Your task to perform on an android device: change the clock display to digital Image 0: 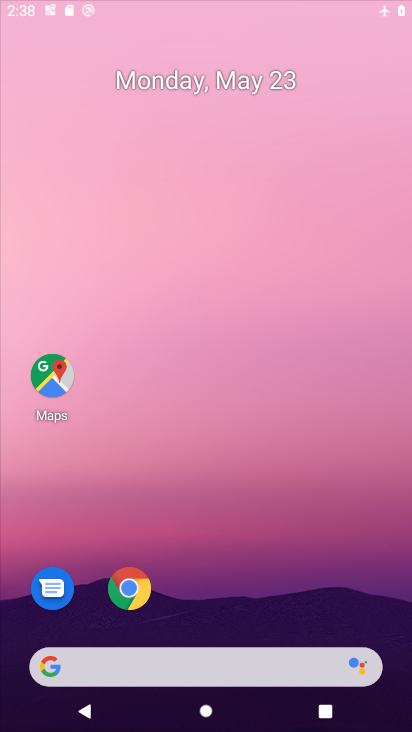
Step 0: click (161, 171)
Your task to perform on an android device: change the clock display to digital Image 1: 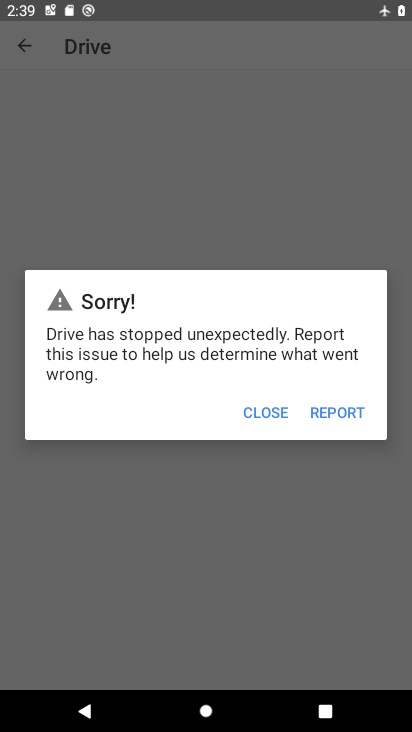
Step 1: press home button
Your task to perform on an android device: change the clock display to digital Image 2: 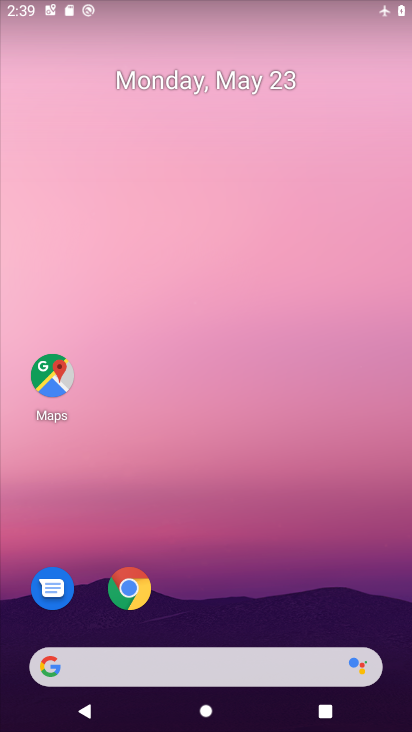
Step 2: drag from (231, 614) to (238, 127)
Your task to perform on an android device: change the clock display to digital Image 3: 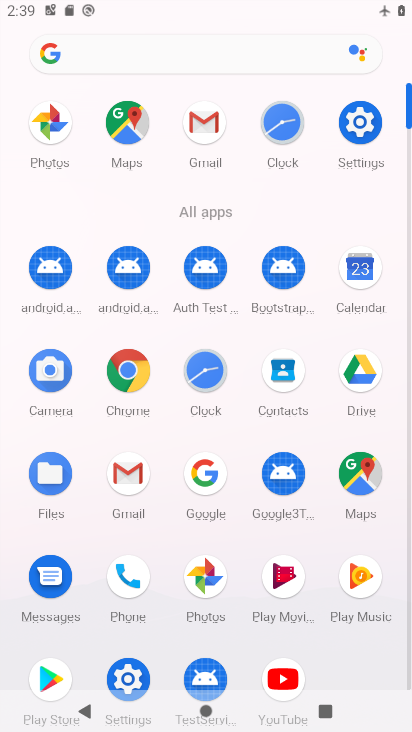
Step 3: click (217, 367)
Your task to perform on an android device: change the clock display to digital Image 4: 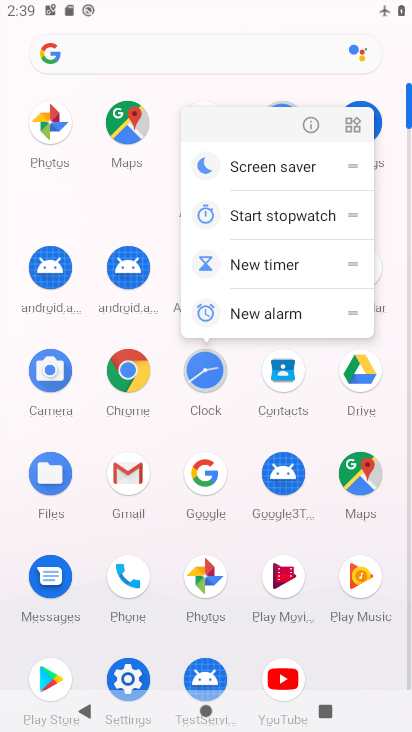
Step 4: click (304, 124)
Your task to perform on an android device: change the clock display to digital Image 5: 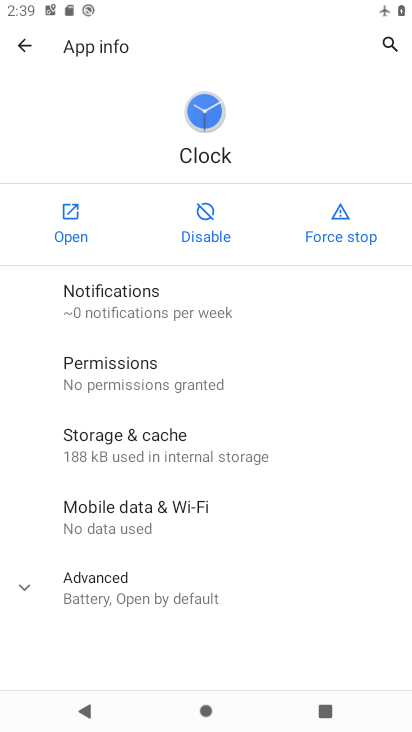
Step 5: click (69, 227)
Your task to perform on an android device: change the clock display to digital Image 6: 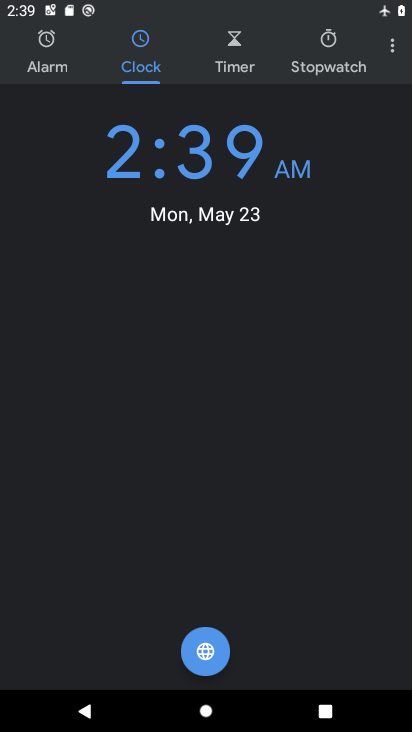
Step 6: click (388, 49)
Your task to perform on an android device: change the clock display to digital Image 7: 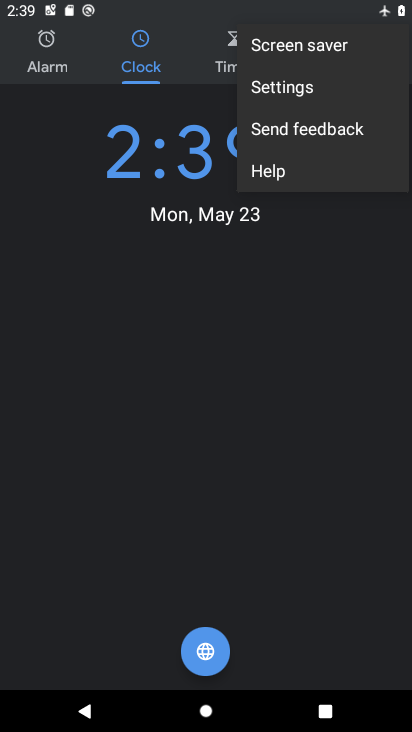
Step 7: click (294, 94)
Your task to perform on an android device: change the clock display to digital Image 8: 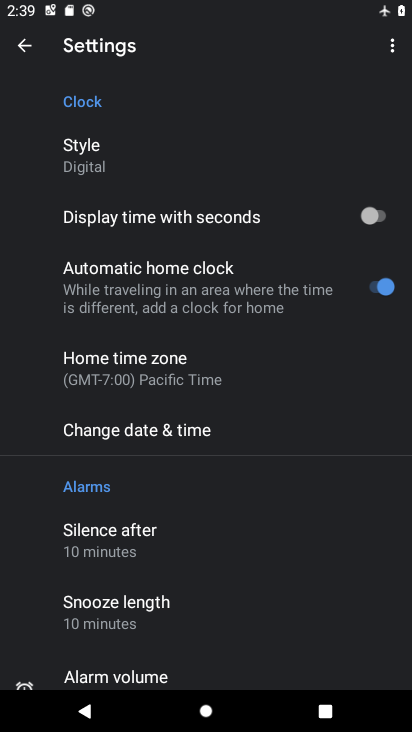
Step 8: click (78, 175)
Your task to perform on an android device: change the clock display to digital Image 9: 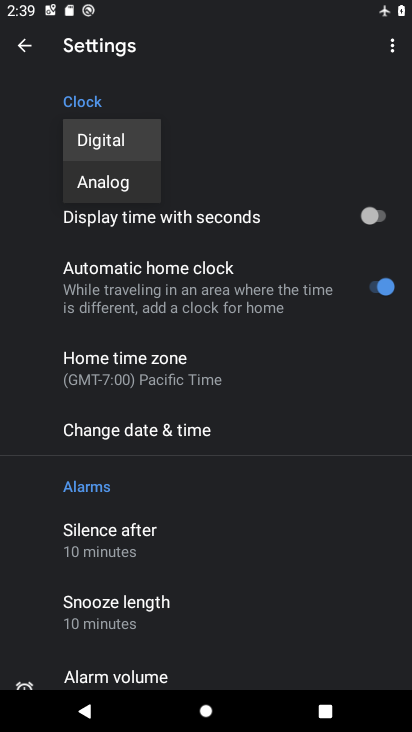
Step 9: click (121, 157)
Your task to perform on an android device: change the clock display to digital Image 10: 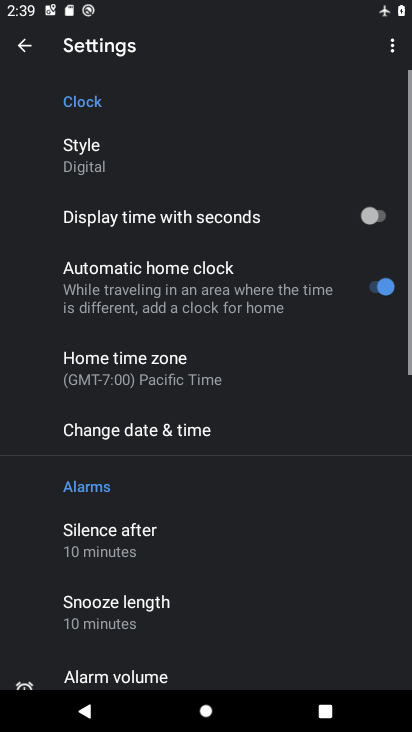
Step 10: task complete